Your task to perform on an android device: search for starred emails in the gmail app Image 0: 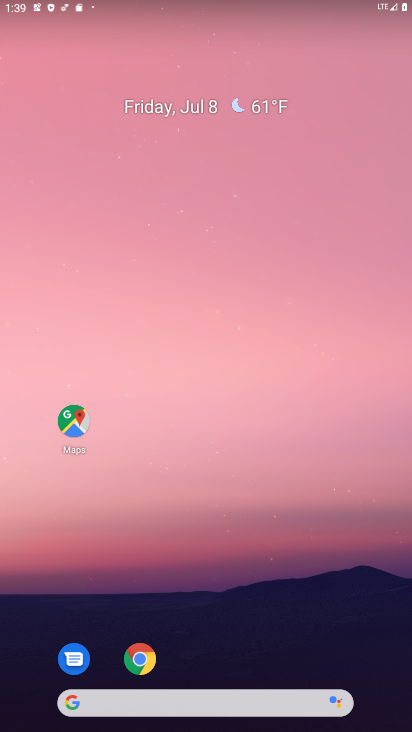
Step 0: drag from (264, 654) to (266, 287)
Your task to perform on an android device: search for starred emails in the gmail app Image 1: 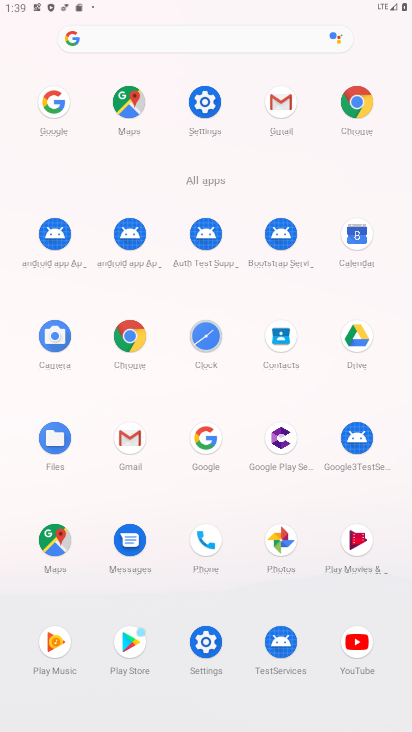
Step 1: click (115, 453)
Your task to perform on an android device: search for starred emails in the gmail app Image 2: 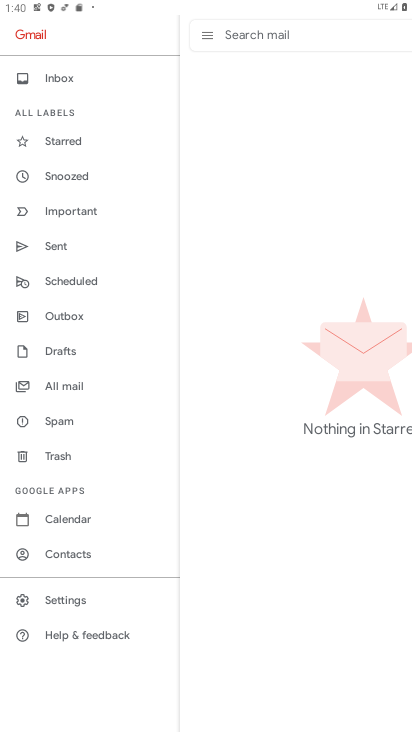
Step 2: click (56, 144)
Your task to perform on an android device: search for starred emails in the gmail app Image 3: 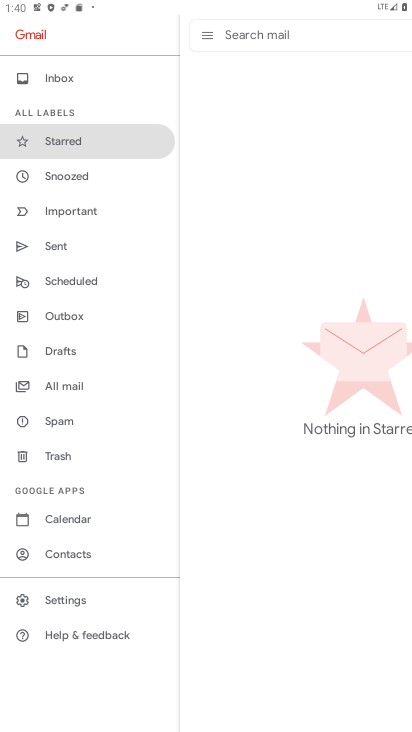
Step 3: click (75, 144)
Your task to perform on an android device: search for starred emails in the gmail app Image 4: 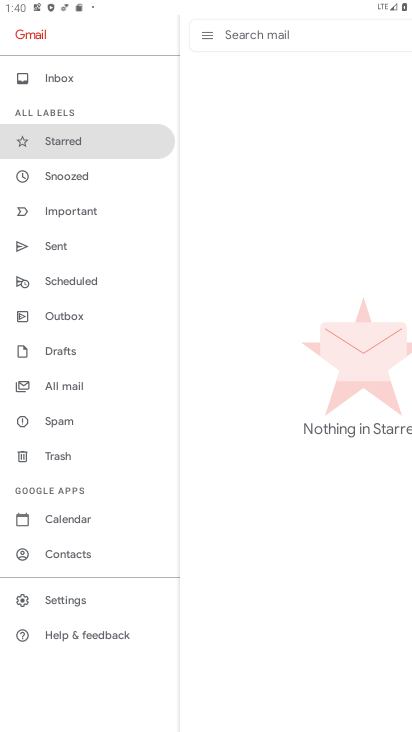
Step 4: task complete